Your task to perform on an android device: Open Google Maps and go to "Timeline" Image 0: 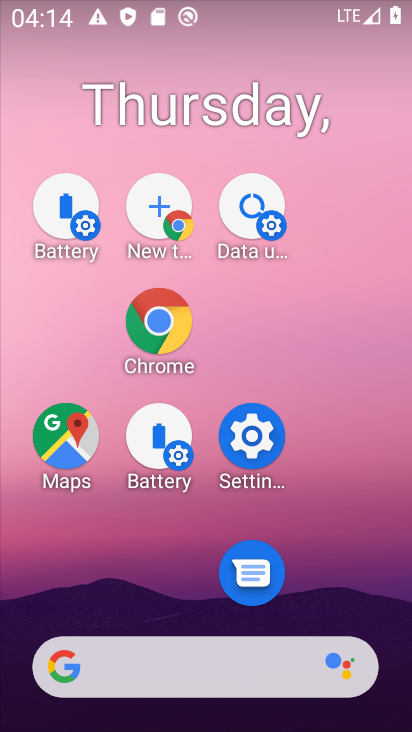
Step 0: drag from (217, 706) to (126, 228)
Your task to perform on an android device: Open Google Maps and go to "Timeline" Image 1: 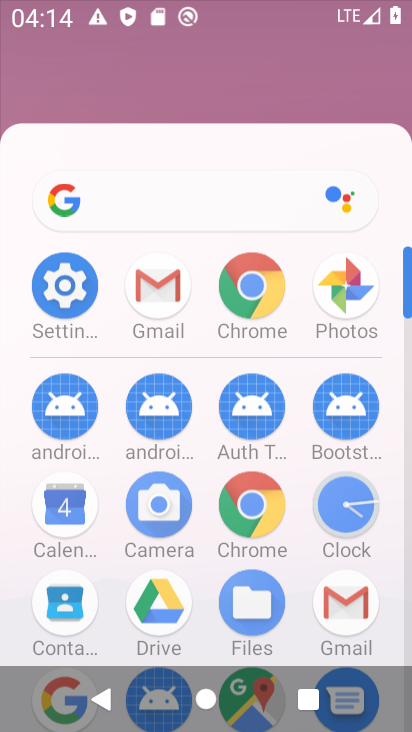
Step 1: drag from (211, 664) to (168, 308)
Your task to perform on an android device: Open Google Maps and go to "Timeline" Image 2: 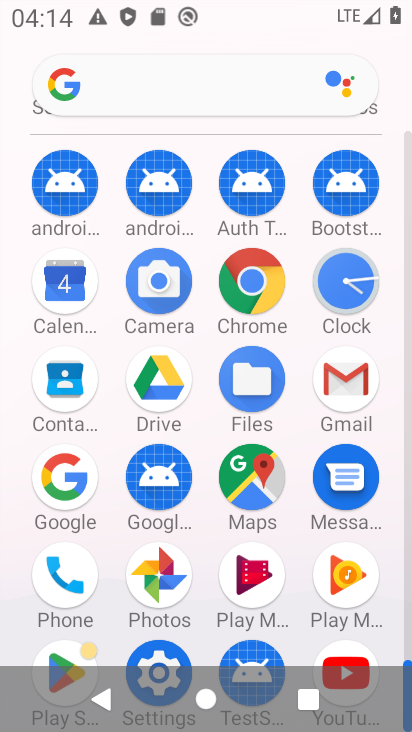
Step 2: drag from (198, 334) to (198, 295)
Your task to perform on an android device: Open Google Maps and go to "Timeline" Image 3: 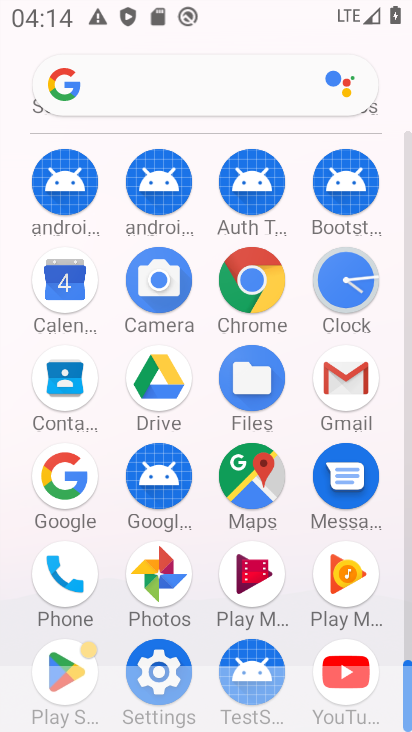
Step 3: click (241, 474)
Your task to perform on an android device: Open Google Maps and go to "Timeline" Image 4: 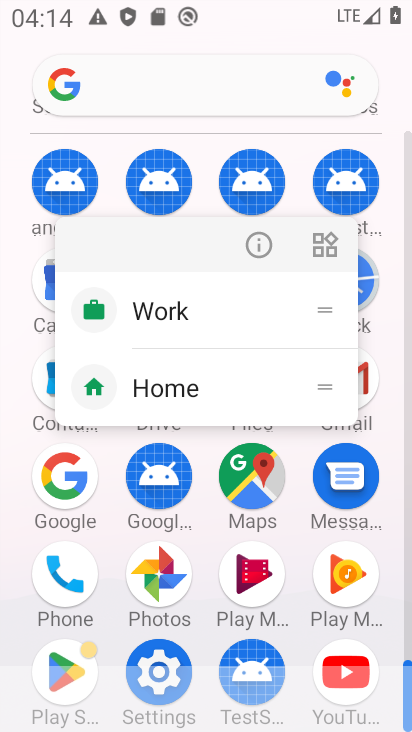
Step 4: click (187, 317)
Your task to perform on an android device: Open Google Maps and go to "Timeline" Image 5: 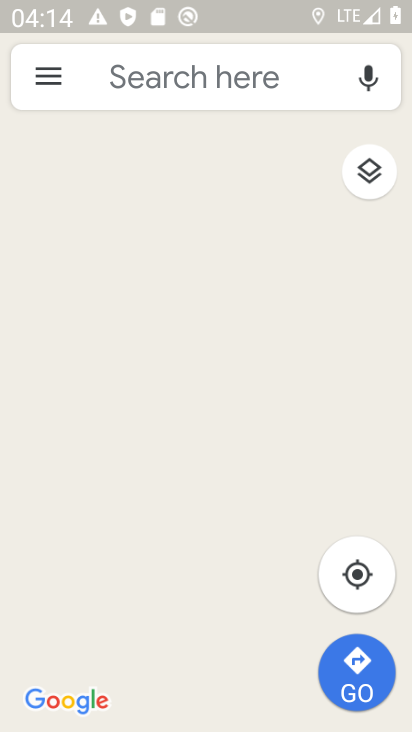
Step 5: click (35, 70)
Your task to perform on an android device: Open Google Maps and go to "Timeline" Image 6: 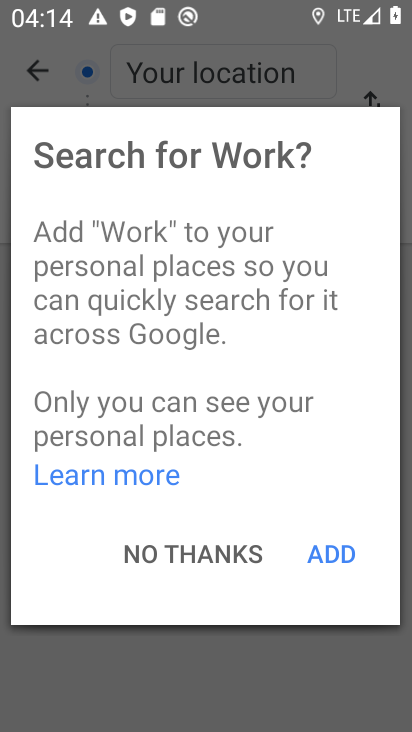
Step 6: click (209, 549)
Your task to perform on an android device: Open Google Maps and go to "Timeline" Image 7: 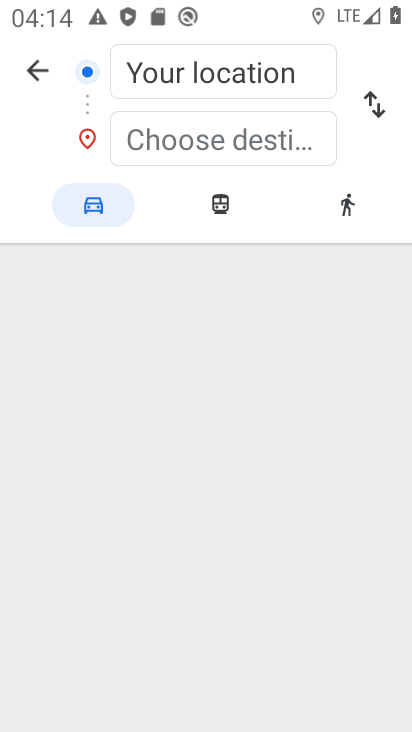
Step 7: click (34, 80)
Your task to perform on an android device: Open Google Maps and go to "Timeline" Image 8: 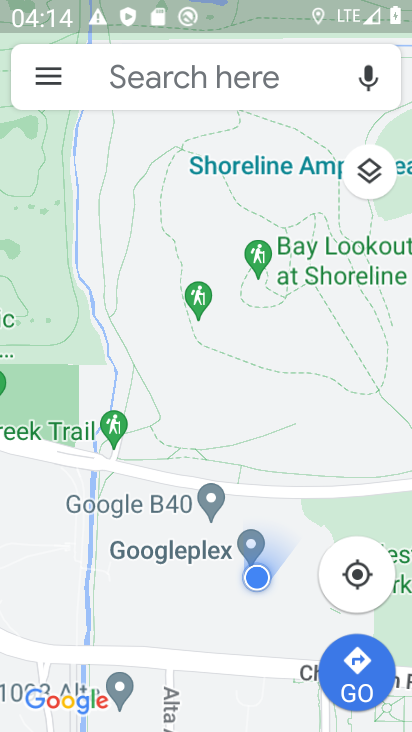
Step 8: click (33, 85)
Your task to perform on an android device: Open Google Maps and go to "Timeline" Image 9: 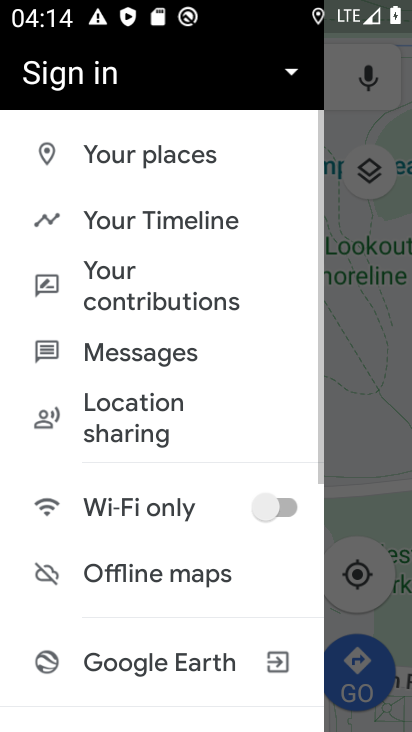
Step 9: click (139, 207)
Your task to perform on an android device: Open Google Maps and go to "Timeline" Image 10: 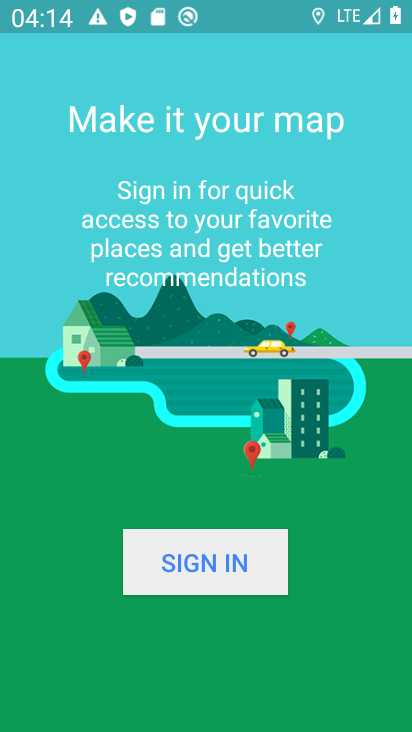
Step 10: task complete